Your task to perform on an android device: open a new tab in the chrome app Image 0: 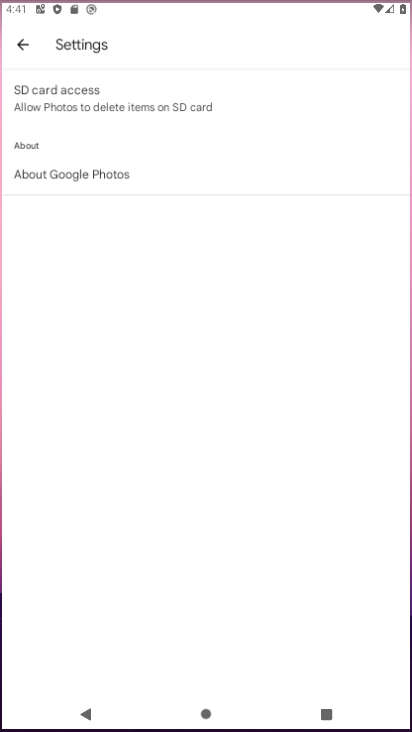
Step 0: drag from (196, 641) to (282, 85)
Your task to perform on an android device: open a new tab in the chrome app Image 1: 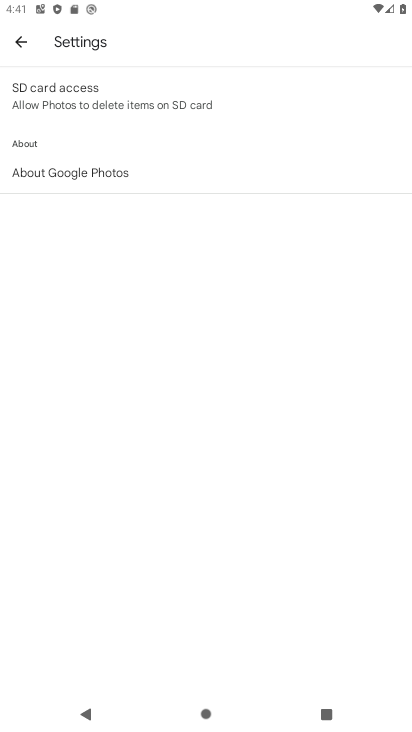
Step 1: press home button
Your task to perform on an android device: open a new tab in the chrome app Image 2: 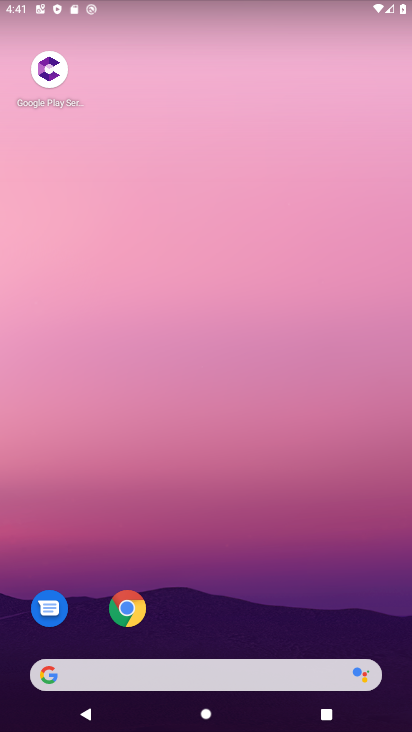
Step 2: click (135, 617)
Your task to perform on an android device: open a new tab in the chrome app Image 3: 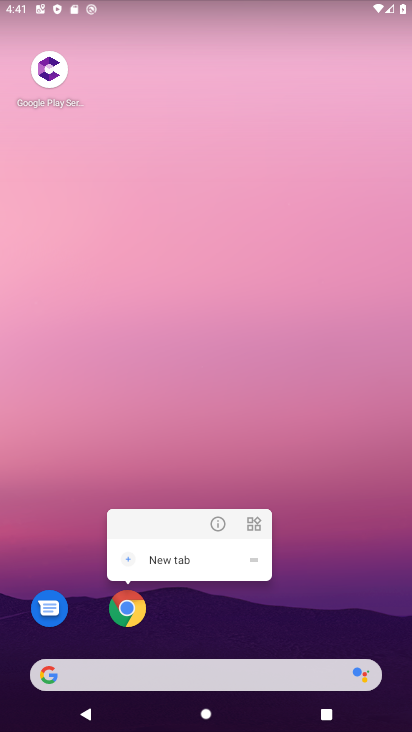
Step 3: click (129, 611)
Your task to perform on an android device: open a new tab in the chrome app Image 4: 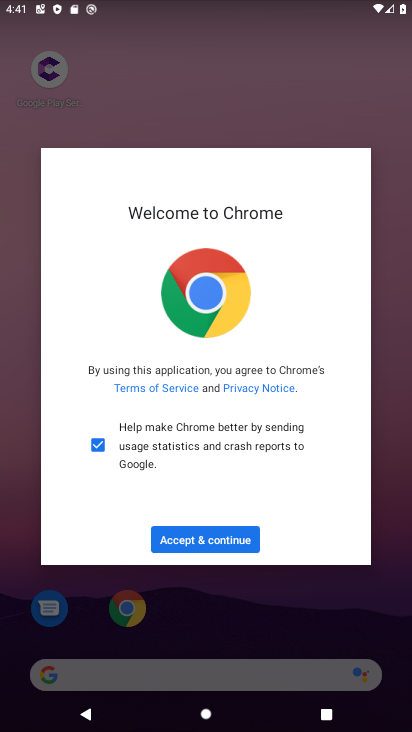
Step 4: click (240, 532)
Your task to perform on an android device: open a new tab in the chrome app Image 5: 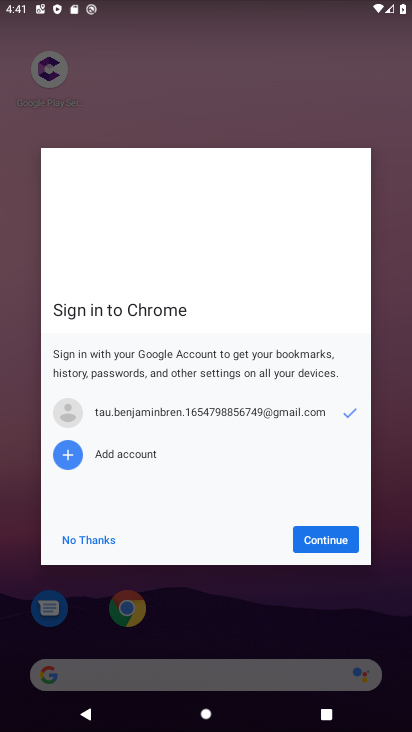
Step 5: click (325, 517)
Your task to perform on an android device: open a new tab in the chrome app Image 6: 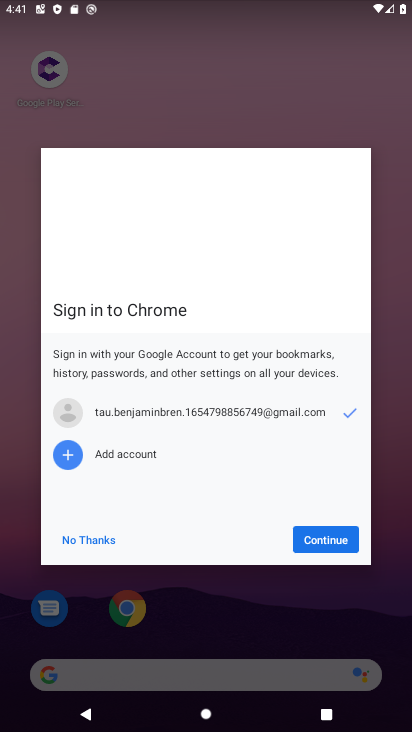
Step 6: click (336, 535)
Your task to perform on an android device: open a new tab in the chrome app Image 7: 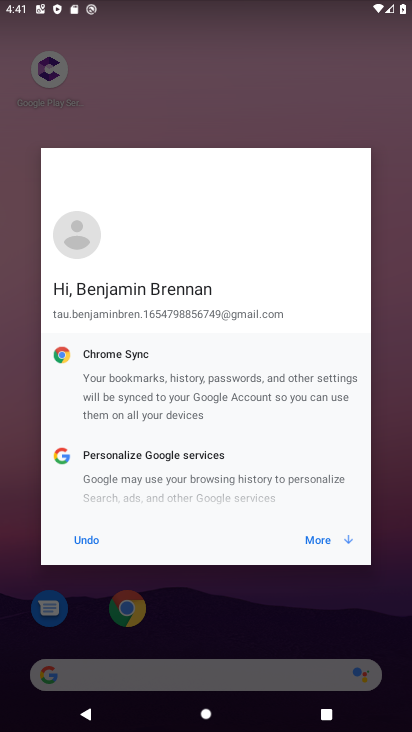
Step 7: click (321, 541)
Your task to perform on an android device: open a new tab in the chrome app Image 8: 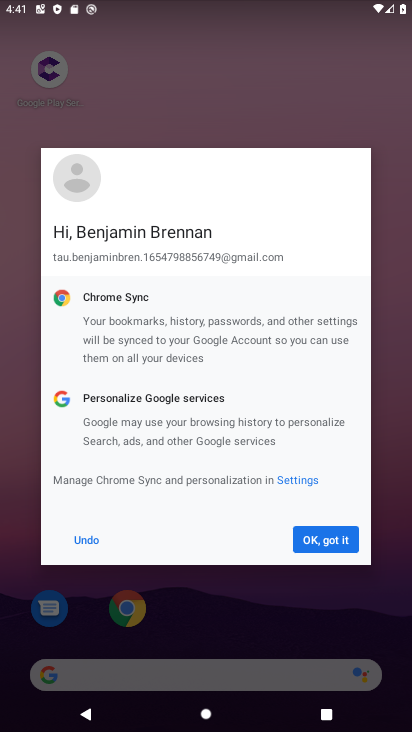
Step 8: click (321, 541)
Your task to perform on an android device: open a new tab in the chrome app Image 9: 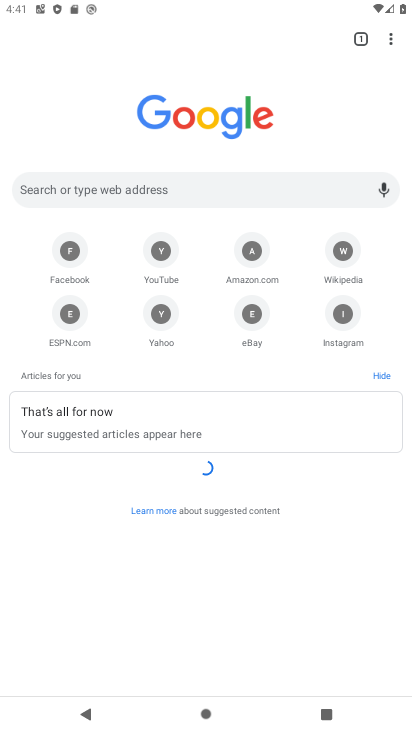
Step 9: task complete